Your task to perform on an android device: Empty the shopping cart on newegg. Search for macbook air on newegg, select the first entry, add it to the cart, then select checkout. Image 0: 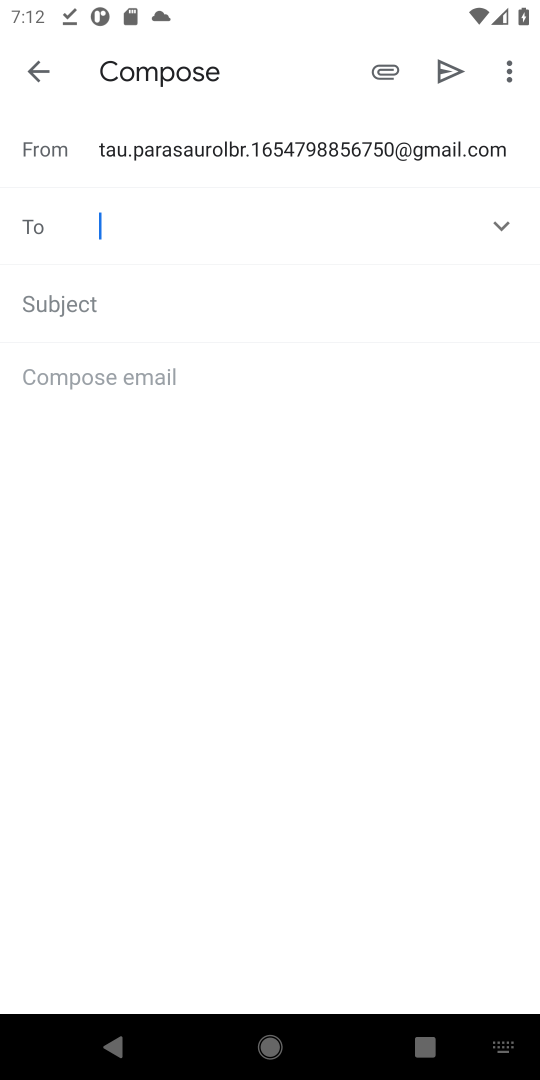
Step 0: press home button
Your task to perform on an android device: Empty the shopping cart on newegg. Search for macbook air on newegg, select the first entry, add it to the cart, then select checkout. Image 1: 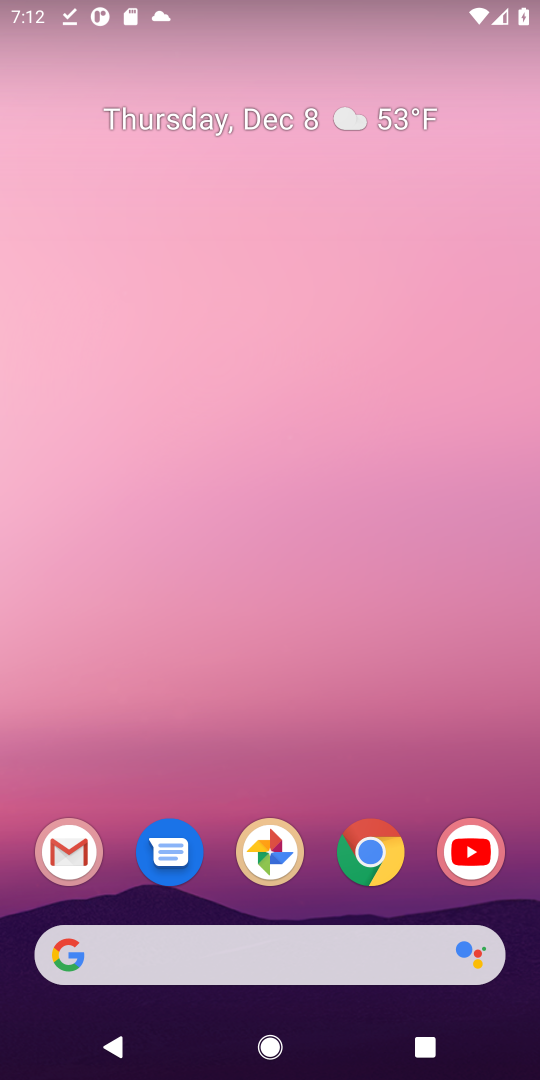
Step 1: click (327, 943)
Your task to perform on an android device: Empty the shopping cart on newegg. Search for macbook air on newegg, select the first entry, add it to the cart, then select checkout. Image 2: 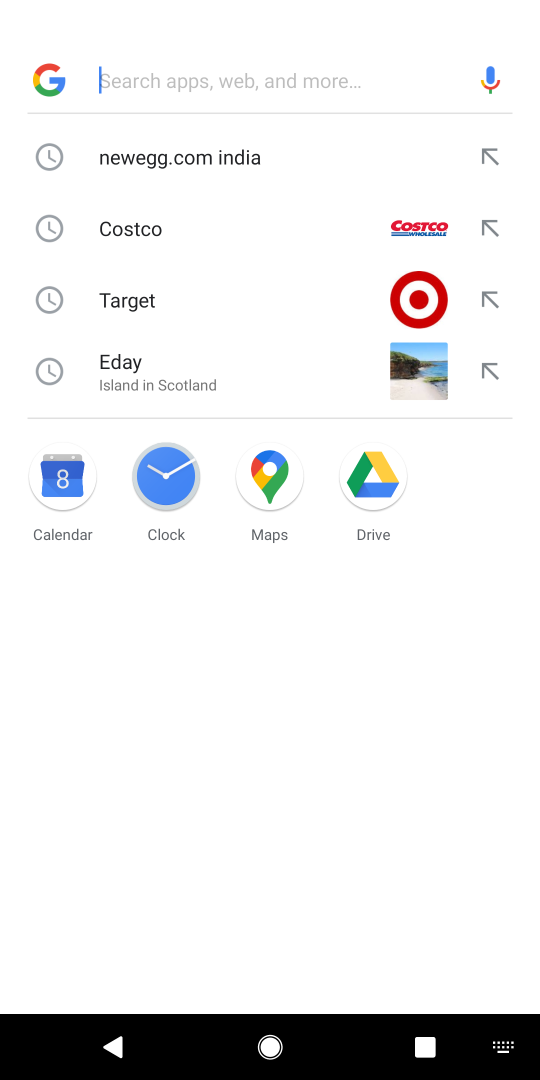
Step 2: click (177, 175)
Your task to perform on an android device: Empty the shopping cart on newegg. Search for macbook air on newegg, select the first entry, add it to the cart, then select checkout. Image 3: 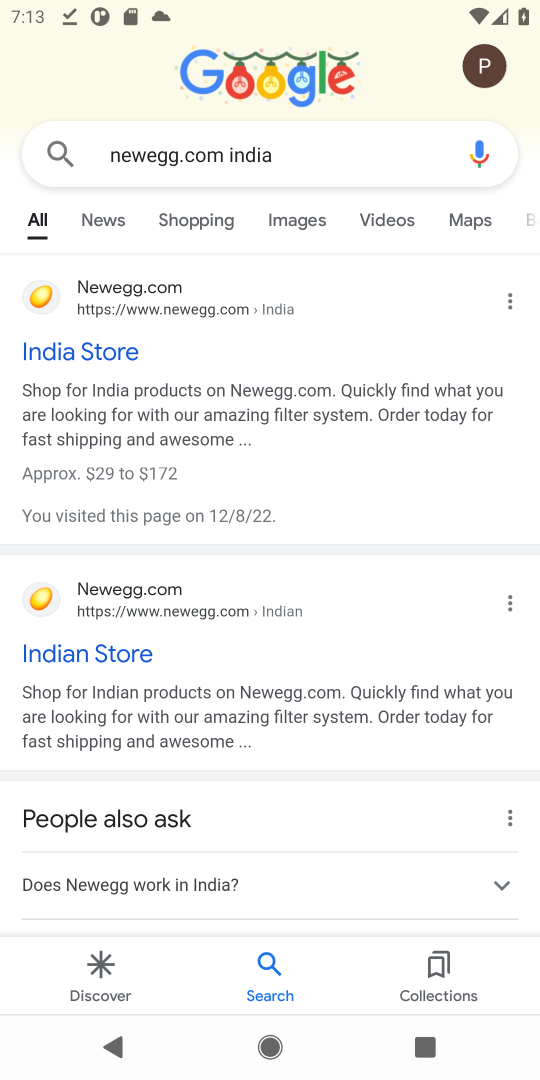
Step 3: click (49, 376)
Your task to perform on an android device: Empty the shopping cart on newegg. Search for macbook air on newegg, select the first entry, add it to the cart, then select checkout. Image 4: 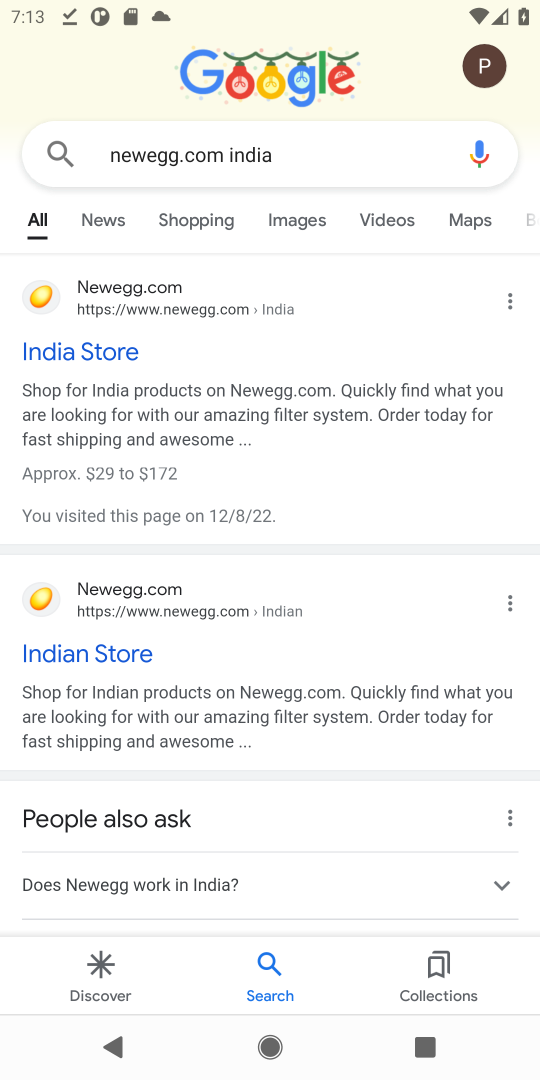
Step 4: click (49, 376)
Your task to perform on an android device: Empty the shopping cart on newegg. Search for macbook air on newegg, select the first entry, add it to the cart, then select checkout. Image 5: 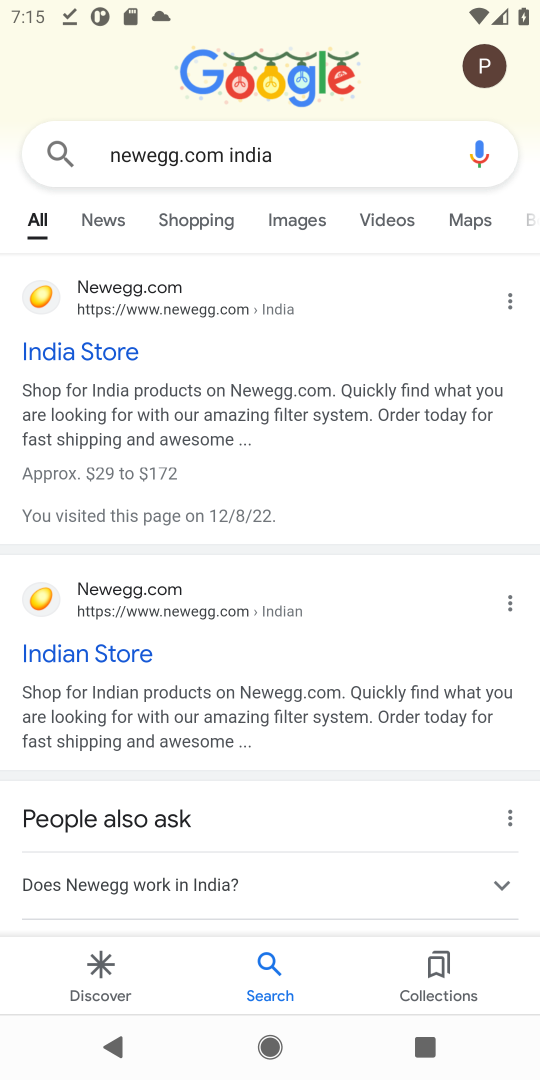
Step 5: click (44, 350)
Your task to perform on an android device: Empty the shopping cart on newegg. Search for macbook air on newegg, select the first entry, add it to the cart, then select checkout. Image 6: 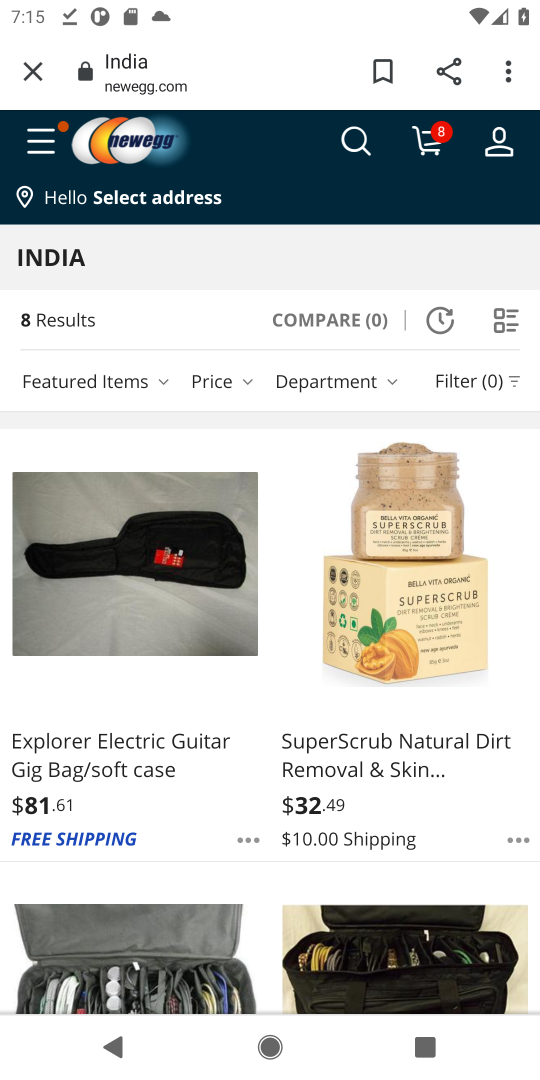
Step 6: click (44, 350)
Your task to perform on an android device: Empty the shopping cart on newegg. Search for macbook air on newegg, select the first entry, add it to the cart, then select checkout. Image 7: 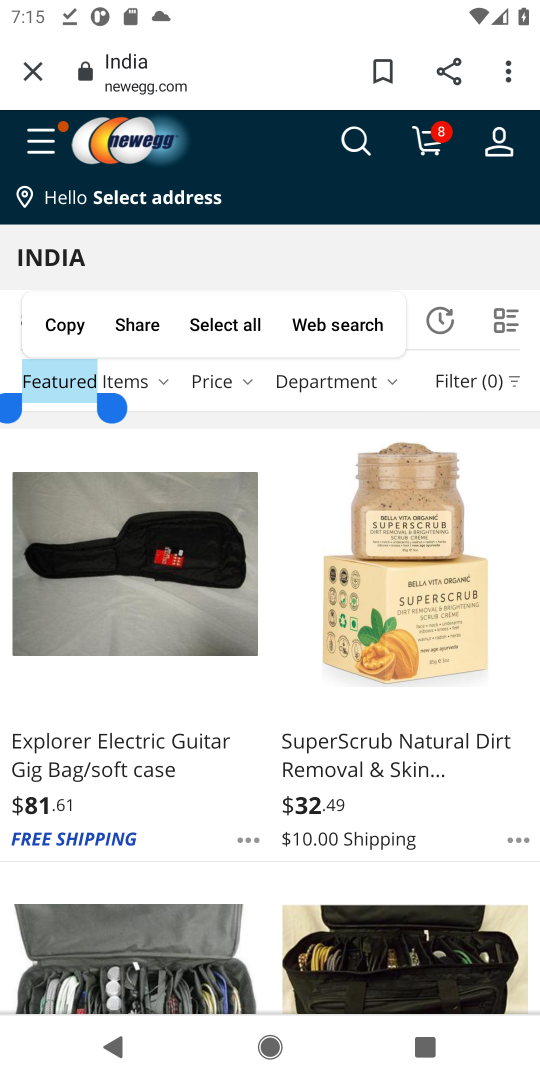
Step 7: task complete